Your task to perform on an android device: toggle location history Image 0: 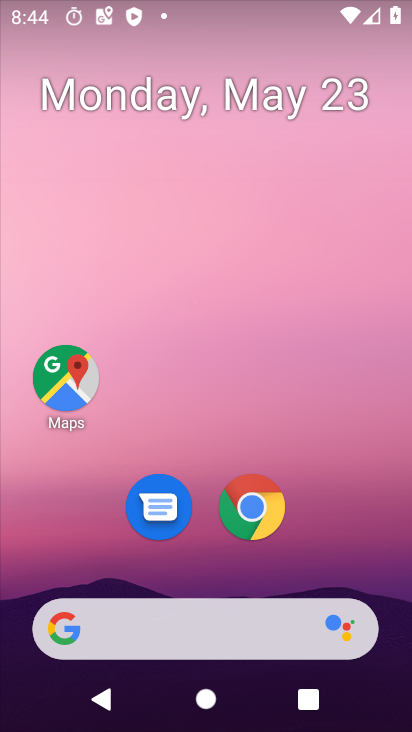
Step 0: drag from (362, 521) to (303, 54)
Your task to perform on an android device: toggle location history Image 1: 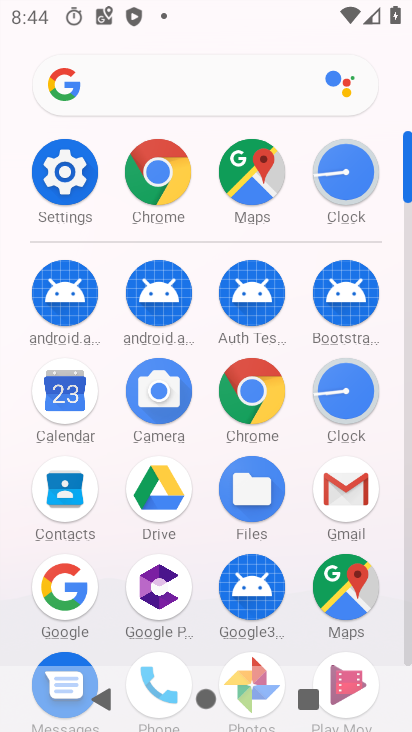
Step 1: click (73, 186)
Your task to perform on an android device: toggle location history Image 2: 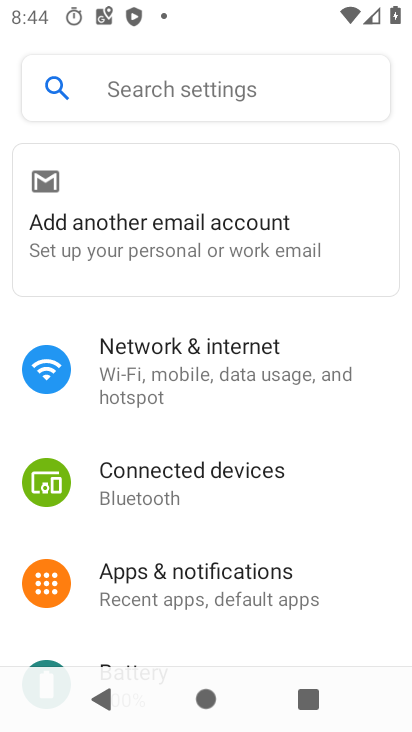
Step 2: drag from (216, 554) to (140, 156)
Your task to perform on an android device: toggle location history Image 3: 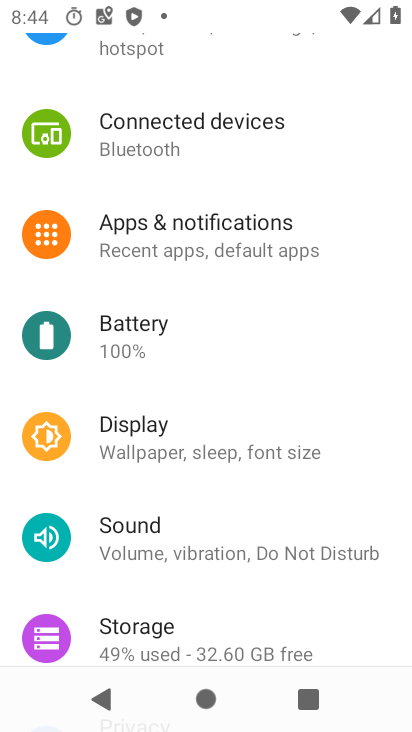
Step 3: drag from (154, 598) to (163, 200)
Your task to perform on an android device: toggle location history Image 4: 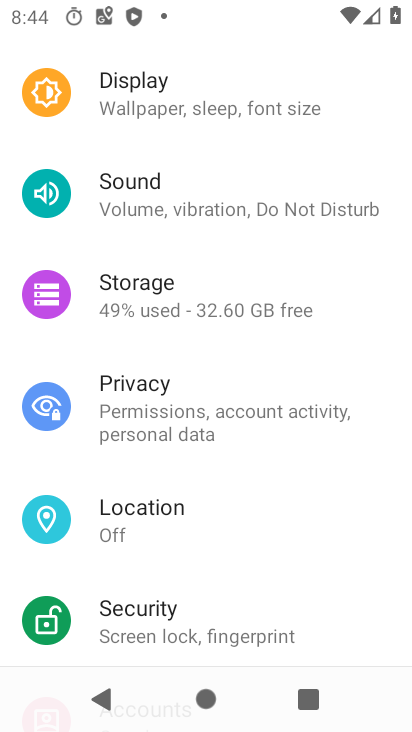
Step 4: click (134, 508)
Your task to perform on an android device: toggle location history Image 5: 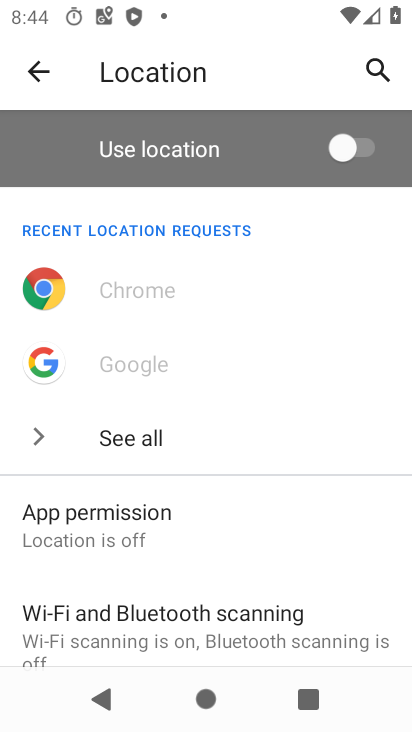
Step 5: drag from (117, 567) to (72, 353)
Your task to perform on an android device: toggle location history Image 6: 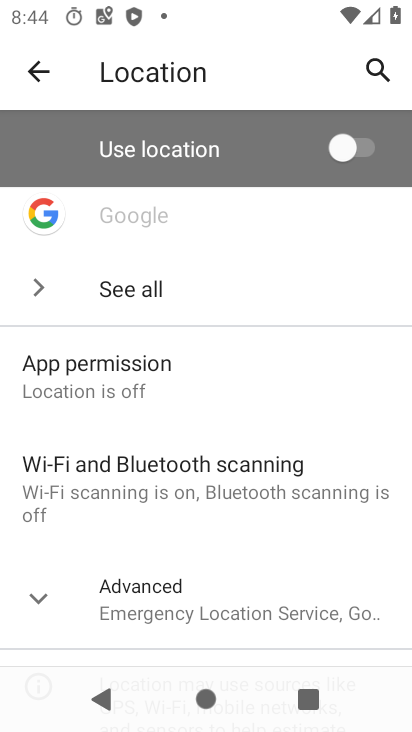
Step 6: click (326, 149)
Your task to perform on an android device: toggle location history Image 7: 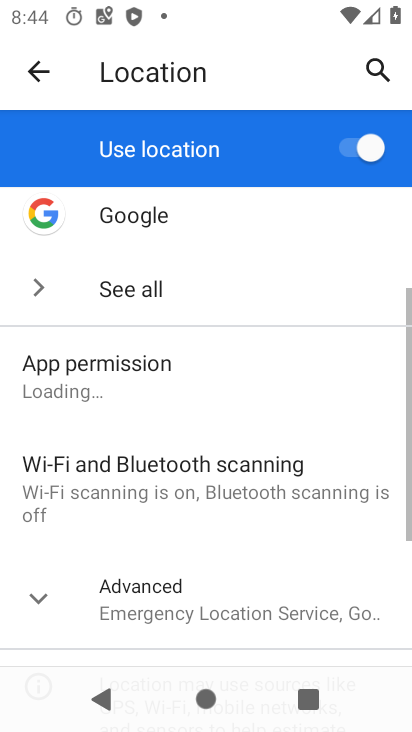
Step 7: drag from (221, 509) to (210, 201)
Your task to perform on an android device: toggle location history Image 8: 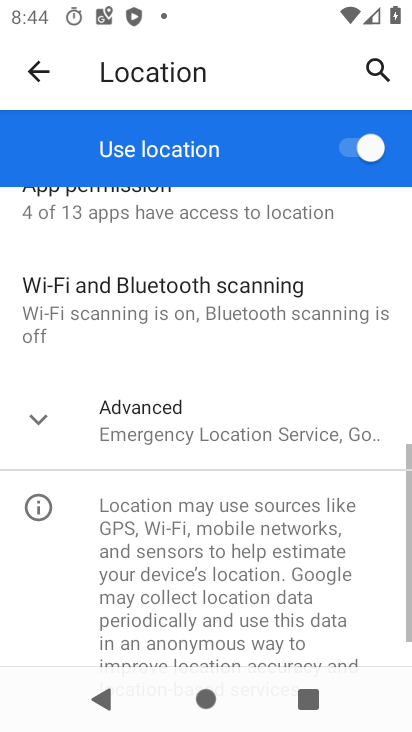
Step 8: click (139, 413)
Your task to perform on an android device: toggle location history Image 9: 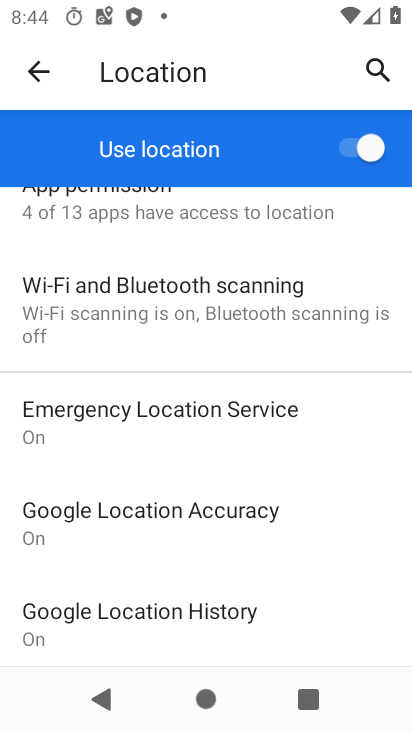
Step 9: drag from (202, 573) to (190, 221)
Your task to perform on an android device: toggle location history Image 10: 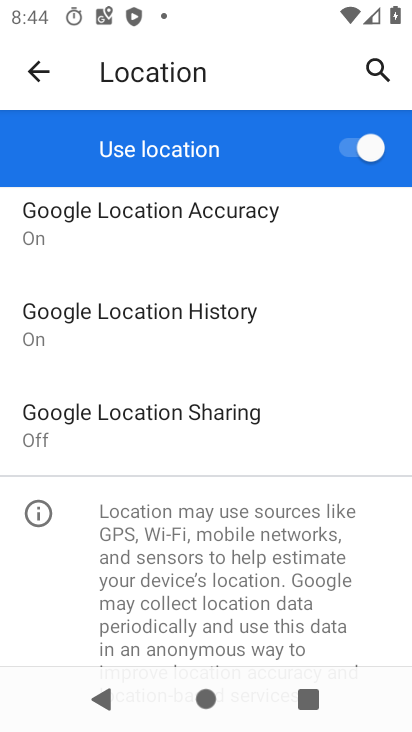
Step 10: click (156, 307)
Your task to perform on an android device: toggle location history Image 11: 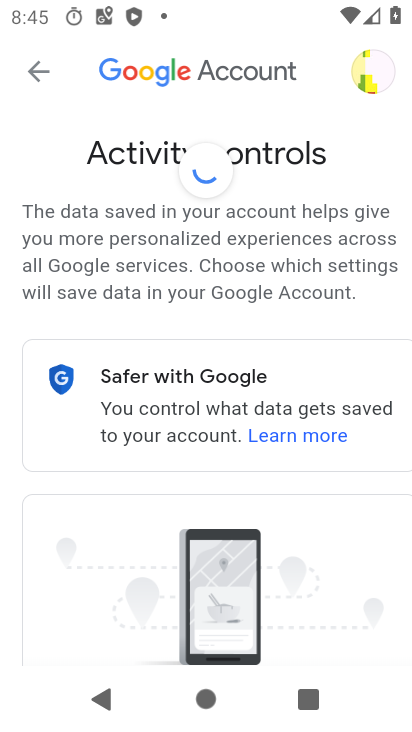
Step 11: drag from (188, 474) to (126, 90)
Your task to perform on an android device: toggle location history Image 12: 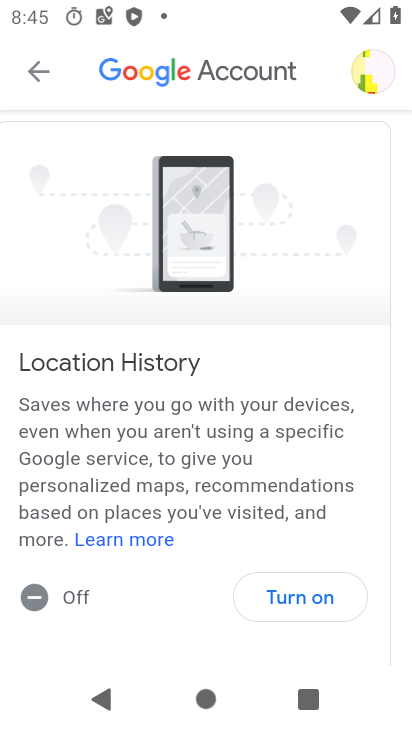
Step 12: drag from (186, 476) to (190, 164)
Your task to perform on an android device: toggle location history Image 13: 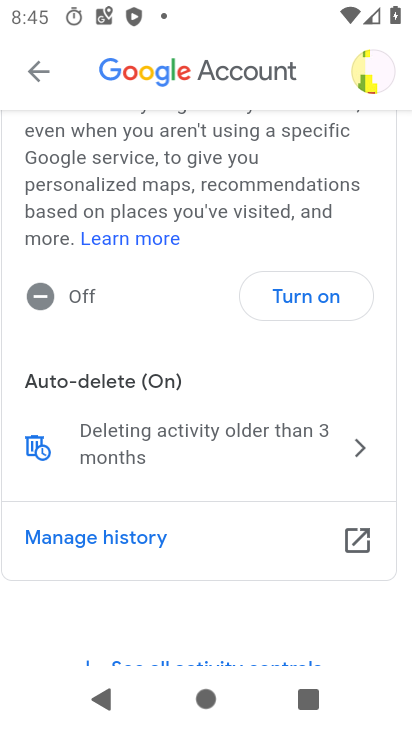
Step 13: click (327, 307)
Your task to perform on an android device: toggle location history Image 14: 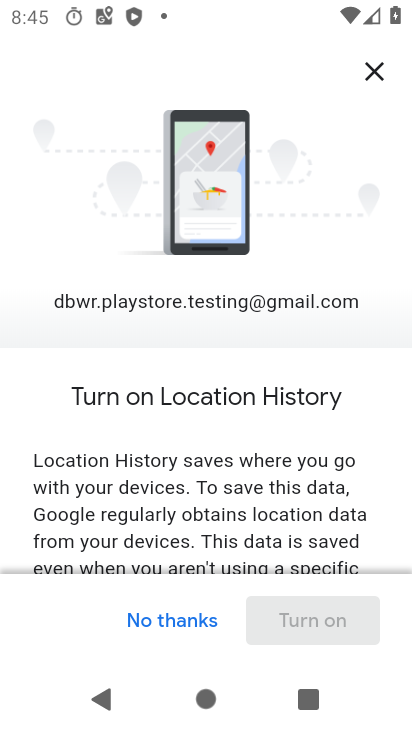
Step 14: drag from (254, 472) to (295, 51)
Your task to perform on an android device: toggle location history Image 15: 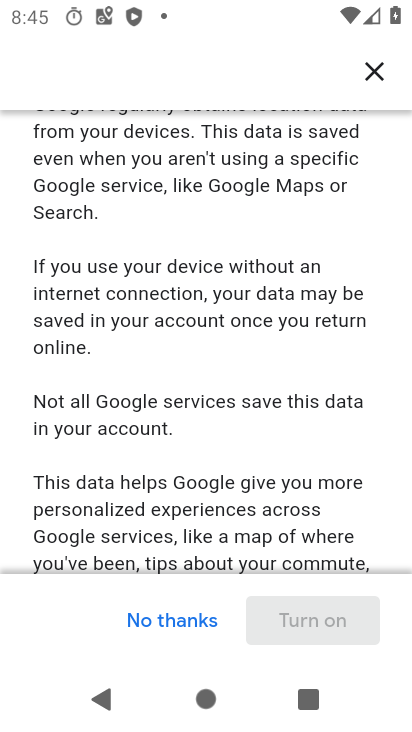
Step 15: drag from (282, 454) to (208, 35)
Your task to perform on an android device: toggle location history Image 16: 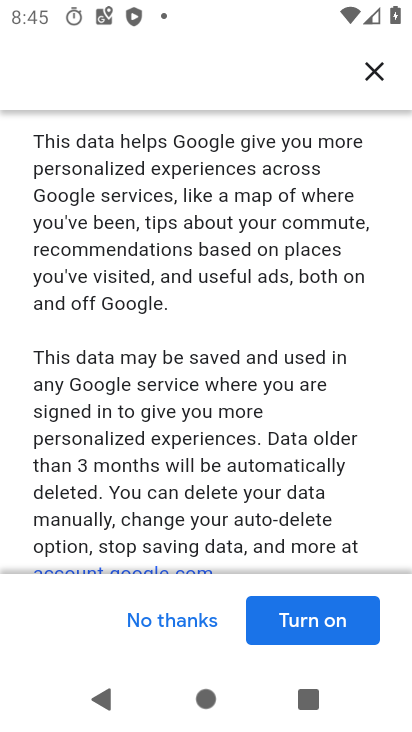
Step 16: click (335, 616)
Your task to perform on an android device: toggle location history Image 17: 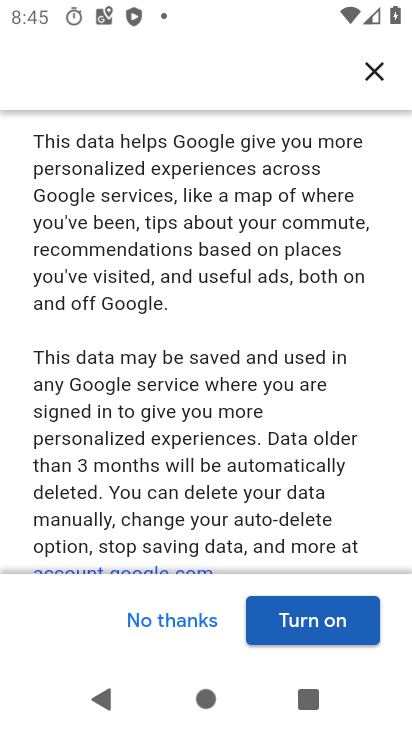
Step 17: click (335, 615)
Your task to perform on an android device: toggle location history Image 18: 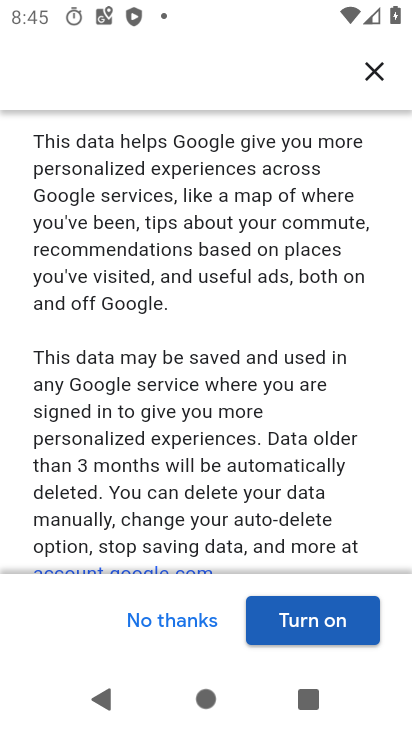
Step 18: click (326, 632)
Your task to perform on an android device: toggle location history Image 19: 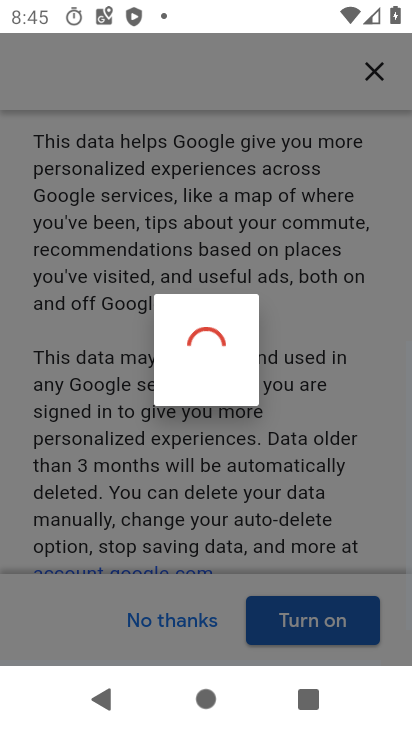
Step 19: task complete